Your task to perform on an android device: Open Chrome and go to settings Image 0: 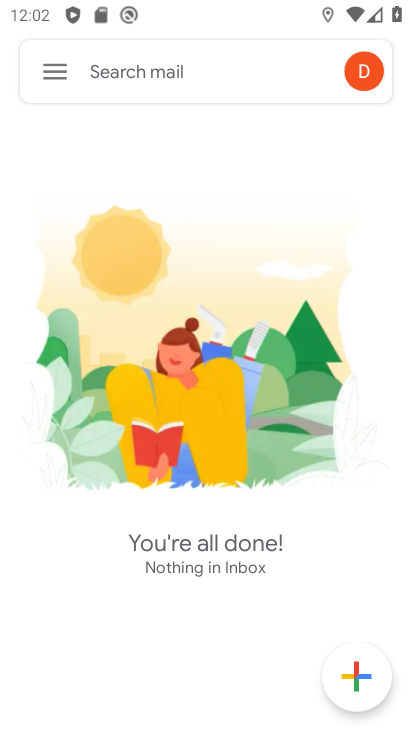
Step 0: press home button
Your task to perform on an android device: Open Chrome and go to settings Image 1: 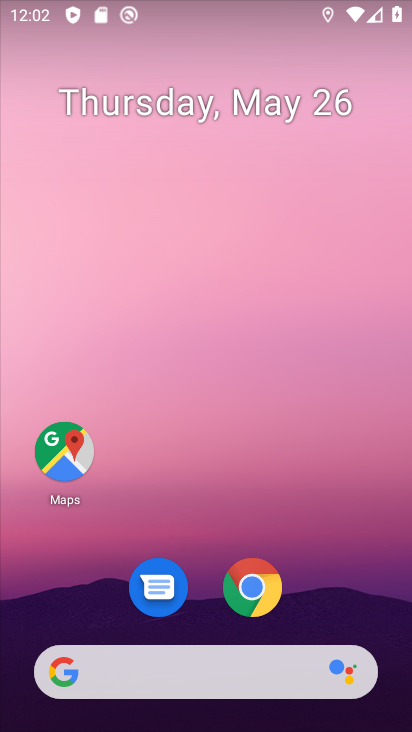
Step 1: drag from (374, 577) to (390, 101)
Your task to perform on an android device: Open Chrome and go to settings Image 2: 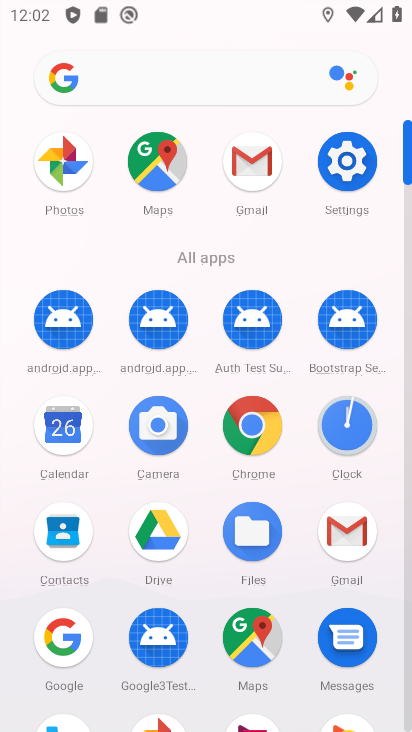
Step 2: click (257, 429)
Your task to perform on an android device: Open Chrome and go to settings Image 3: 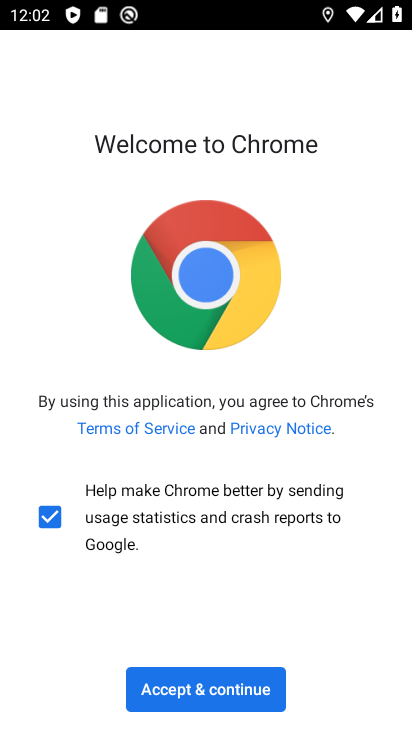
Step 3: click (202, 686)
Your task to perform on an android device: Open Chrome and go to settings Image 4: 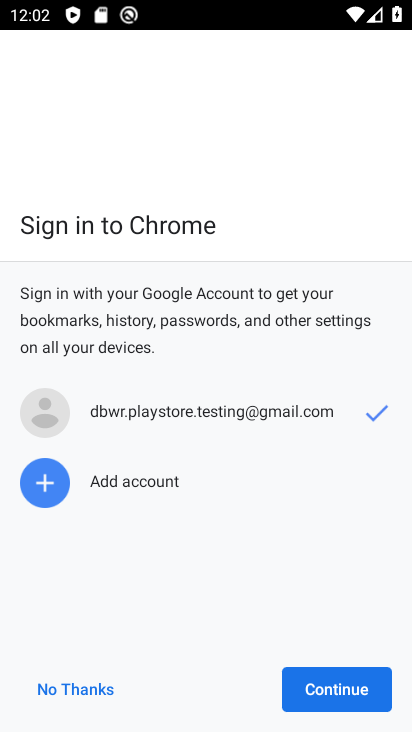
Step 4: click (297, 695)
Your task to perform on an android device: Open Chrome and go to settings Image 5: 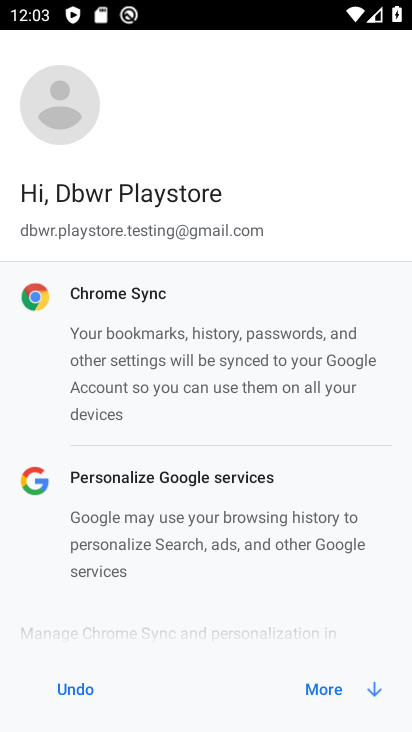
Step 5: click (323, 695)
Your task to perform on an android device: Open Chrome and go to settings Image 6: 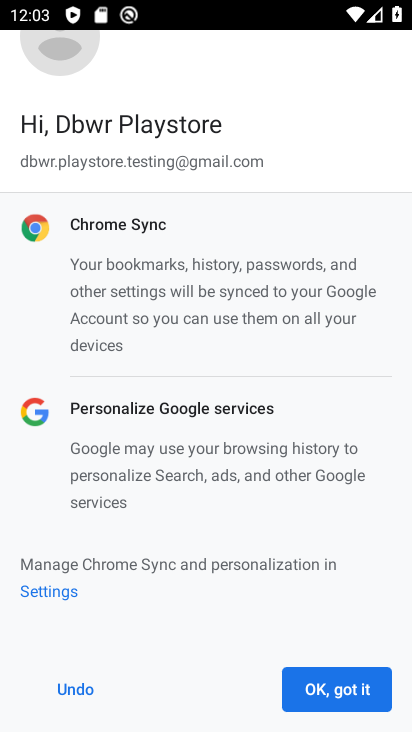
Step 6: click (323, 695)
Your task to perform on an android device: Open Chrome and go to settings Image 7: 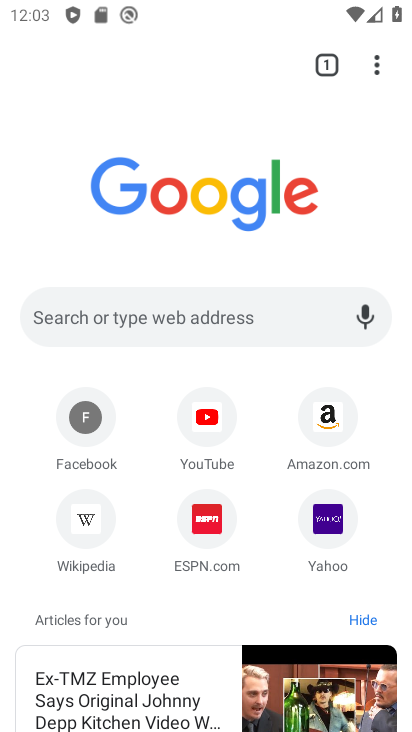
Step 7: click (379, 69)
Your task to perform on an android device: Open Chrome and go to settings Image 8: 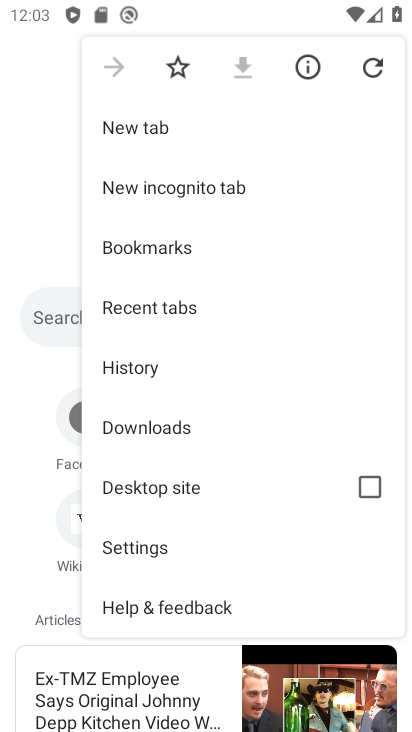
Step 8: click (165, 551)
Your task to perform on an android device: Open Chrome and go to settings Image 9: 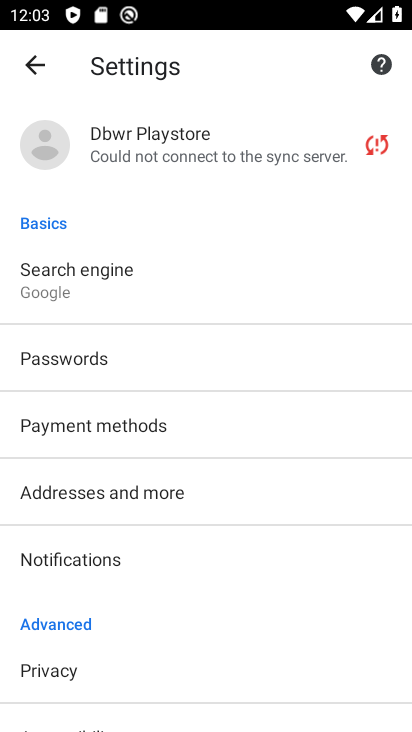
Step 9: task complete